Your task to perform on an android device: Is it going to rain tomorrow? Image 0: 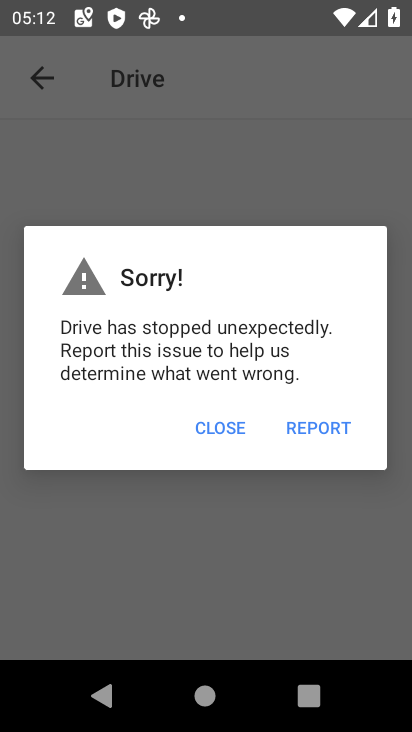
Step 0: click (181, 423)
Your task to perform on an android device: Is it going to rain tomorrow? Image 1: 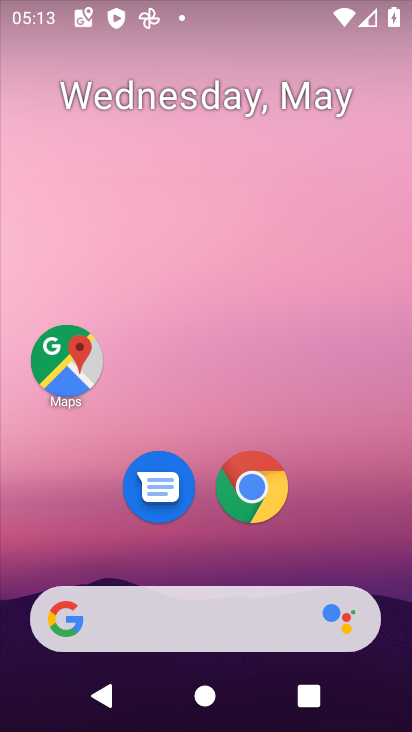
Step 1: drag from (346, 541) to (318, 165)
Your task to perform on an android device: Is it going to rain tomorrow? Image 2: 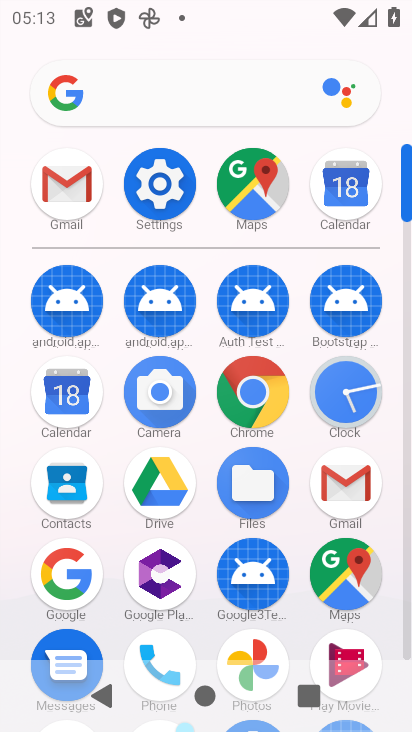
Step 2: click (187, 109)
Your task to perform on an android device: Is it going to rain tomorrow? Image 3: 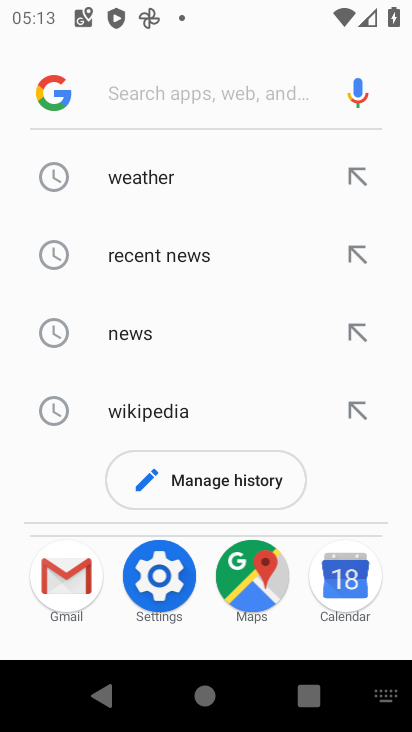
Step 3: click (166, 163)
Your task to perform on an android device: Is it going to rain tomorrow? Image 4: 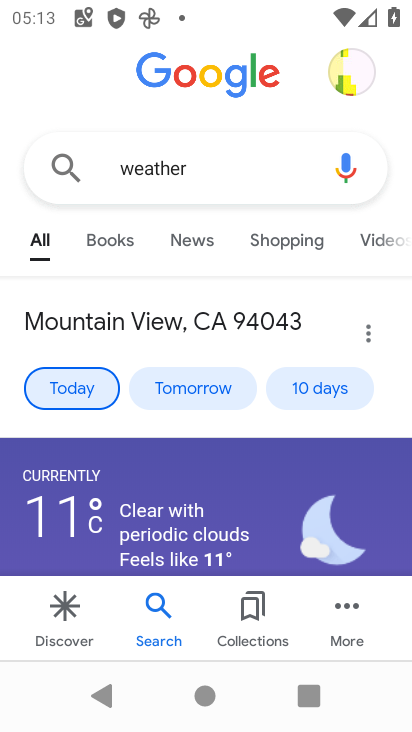
Step 4: click (134, 396)
Your task to perform on an android device: Is it going to rain tomorrow? Image 5: 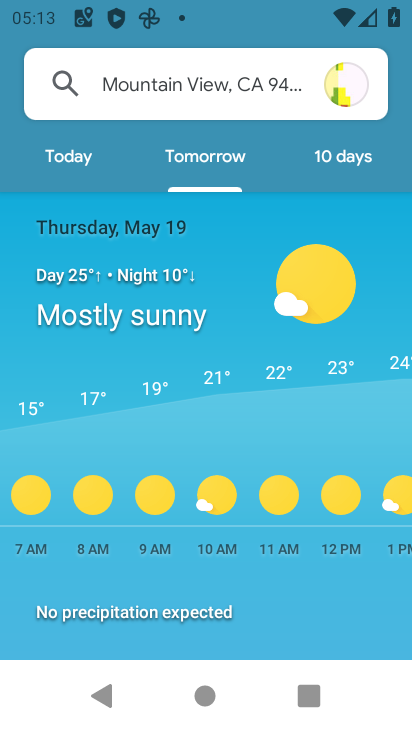
Step 5: task complete